Your task to perform on an android device: move a message to another label in the gmail app Image 0: 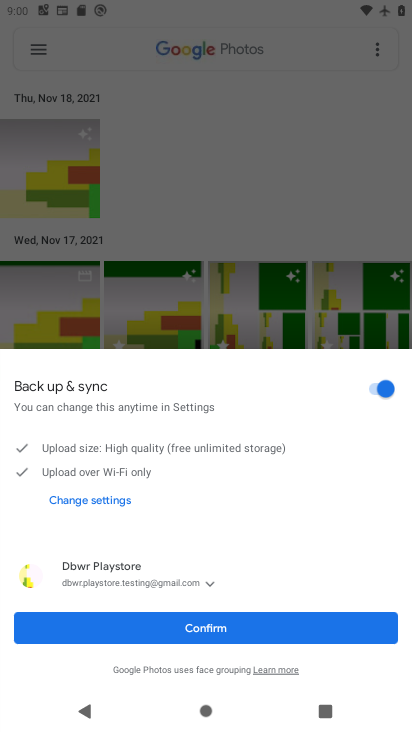
Step 0: press home button
Your task to perform on an android device: move a message to another label in the gmail app Image 1: 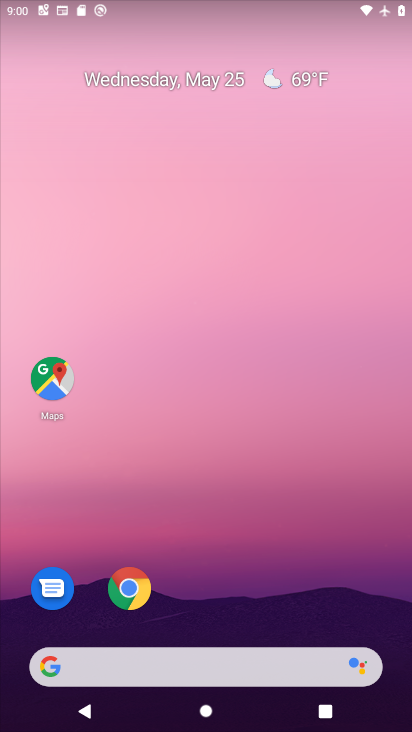
Step 1: drag from (368, 605) to (378, 216)
Your task to perform on an android device: move a message to another label in the gmail app Image 2: 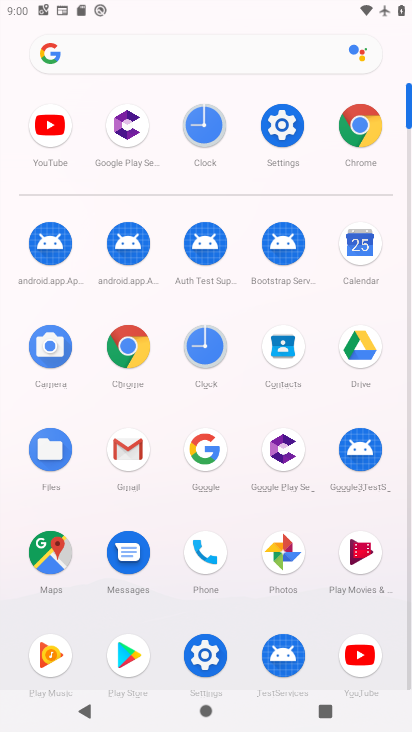
Step 2: click (117, 444)
Your task to perform on an android device: move a message to another label in the gmail app Image 3: 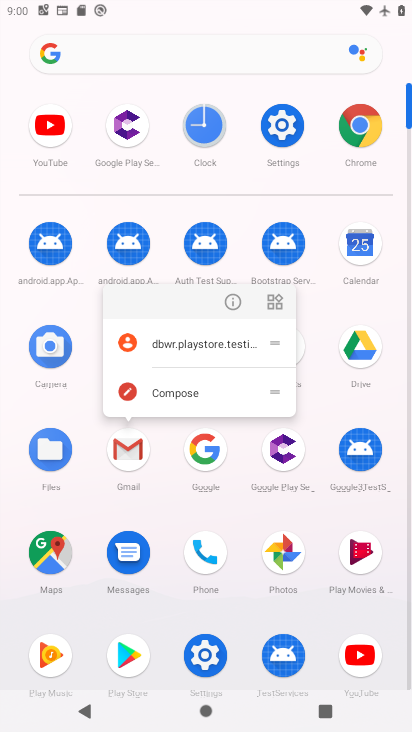
Step 3: click (117, 444)
Your task to perform on an android device: move a message to another label in the gmail app Image 4: 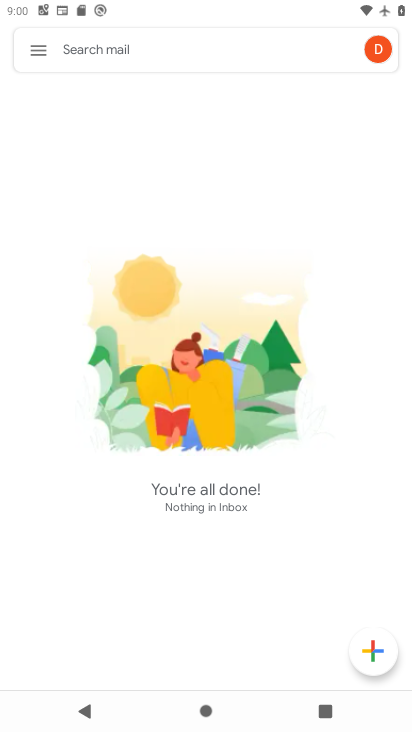
Step 4: task complete